Your task to perform on an android device: refresh tabs in the chrome app Image 0: 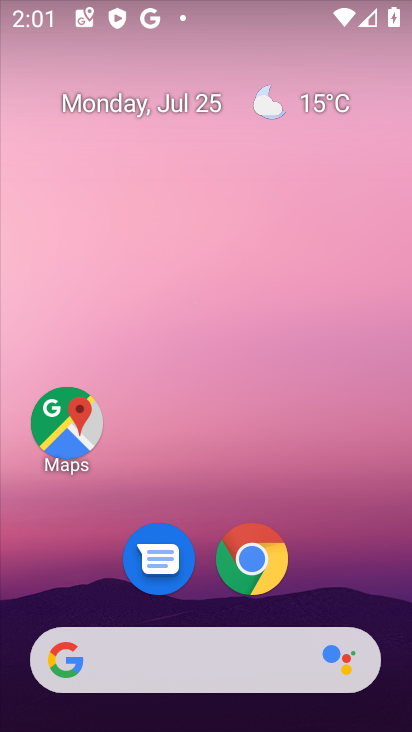
Step 0: click (255, 543)
Your task to perform on an android device: refresh tabs in the chrome app Image 1: 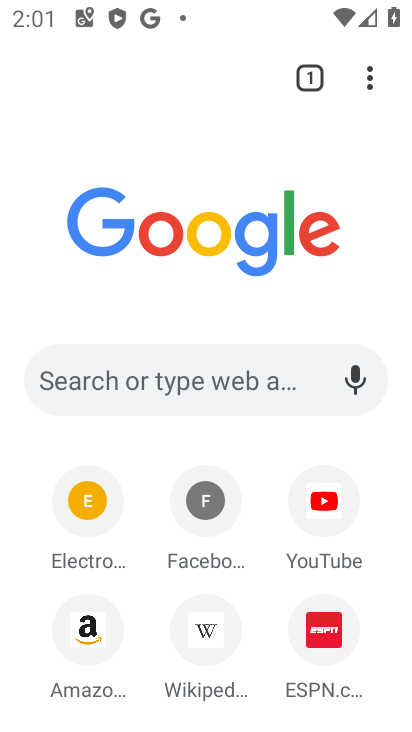
Step 1: click (371, 73)
Your task to perform on an android device: refresh tabs in the chrome app Image 2: 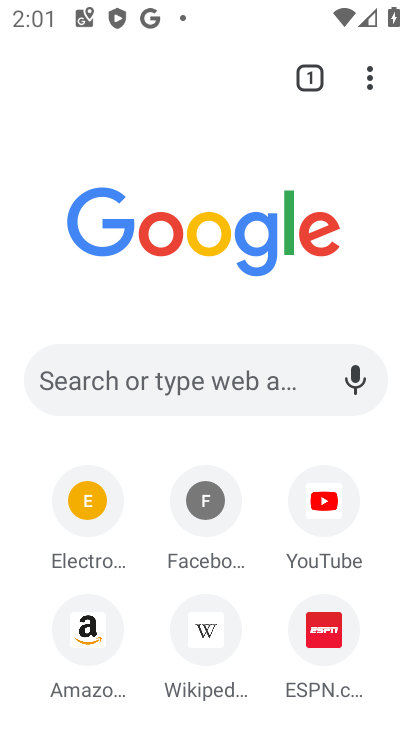
Step 2: task complete